Your task to perform on an android device: check battery use Image 0: 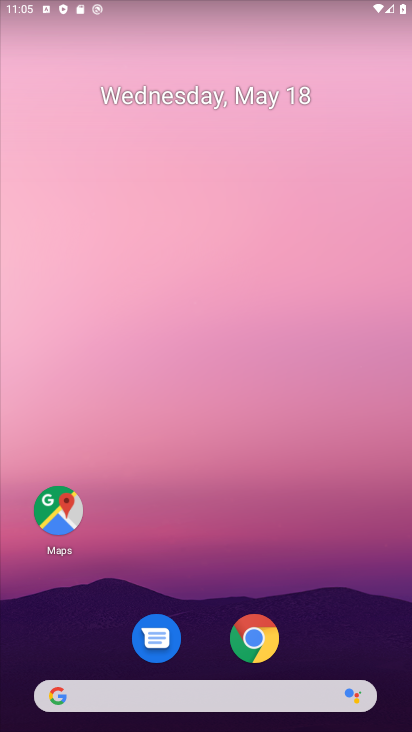
Step 0: drag from (350, 646) to (293, 65)
Your task to perform on an android device: check battery use Image 1: 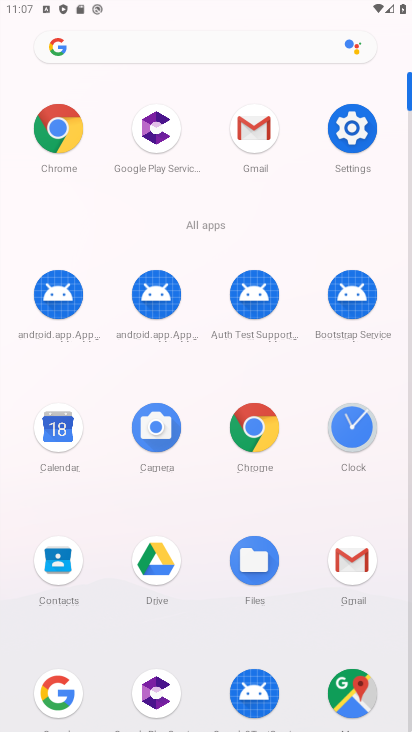
Step 1: click (365, 139)
Your task to perform on an android device: check battery use Image 2: 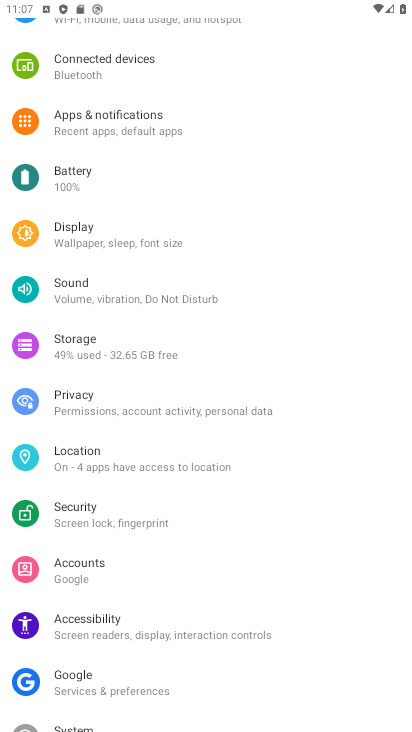
Step 2: click (159, 198)
Your task to perform on an android device: check battery use Image 3: 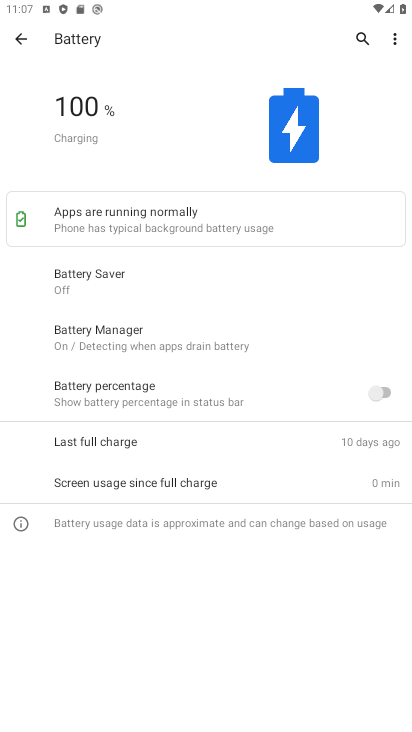
Step 3: task complete